Your task to perform on an android device: change the clock display to show seconds Image 0: 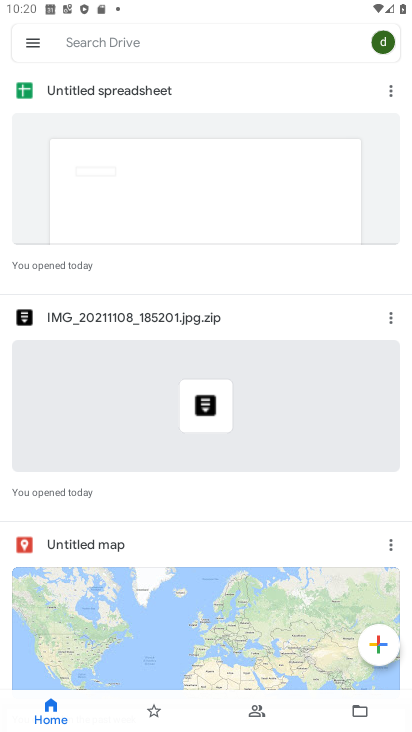
Step 0: press home button
Your task to perform on an android device: change the clock display to show seconds Image 1: 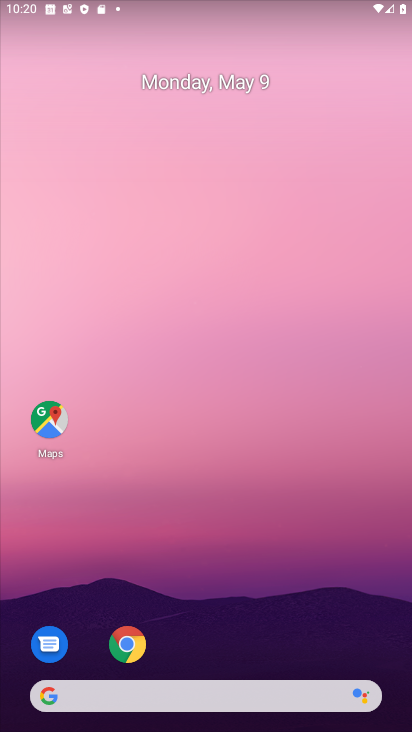
Step 1: drag from (228, 572) to (230, 228)
Your task to perform on an android device: change the clock display to show seconds Image 2: 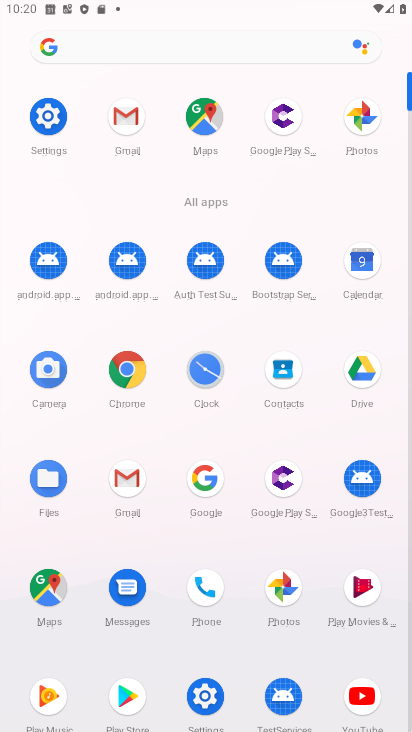
Step 2: click (193, 378)
Your task to perform on an android device: change the clock display to show seconds Image 3: 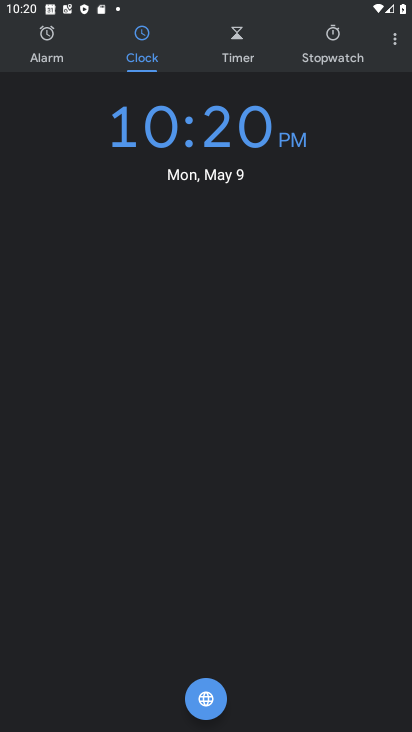
Step 3: click (403, 53)
Your task to perform on an android device: change the clock display to show seconds Image 4: 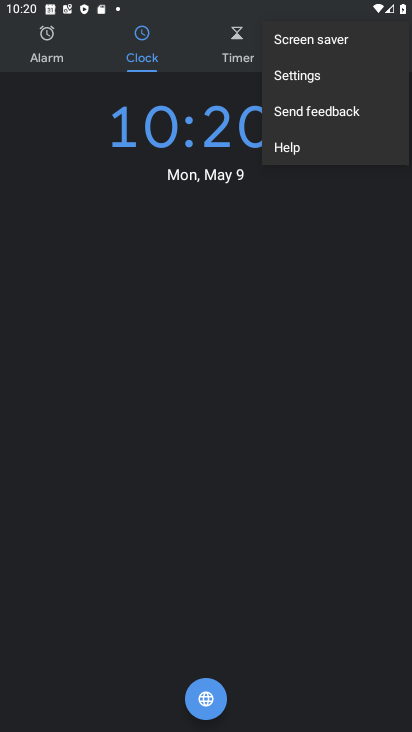
Step 4: click (287, 83)
Your task to perform on an android device: change the clock display to show seconds Image 5: 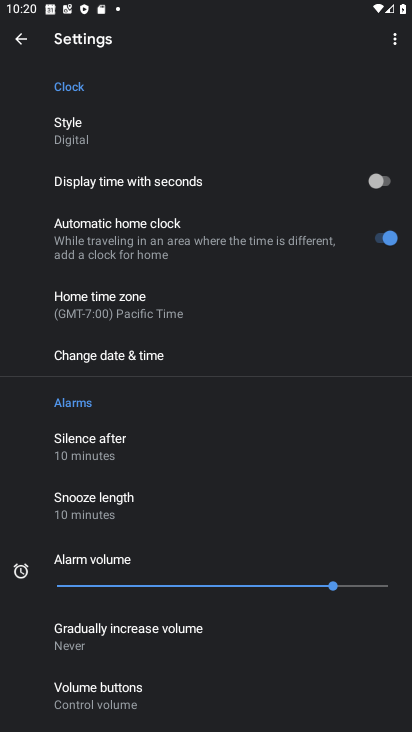
Step 5: click (107, 148)
Your task to perform on an android device: change the clock display to show seconds Image 6: 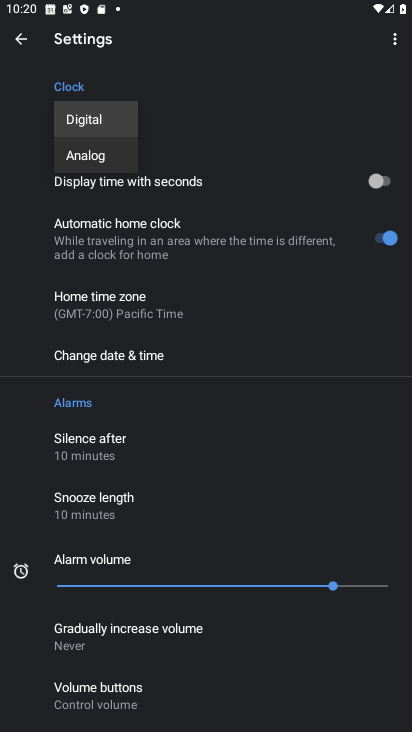
Step 6: click (121, 156)
Your task to perform on an android device: change the clock display to show seconds Image 7: 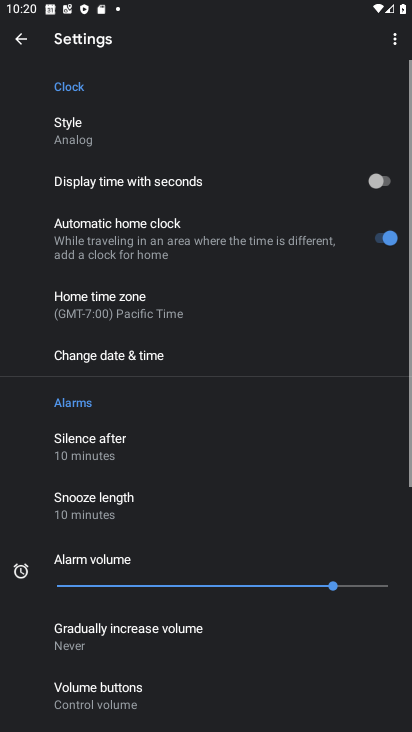
Step 7: click (395, 180)
Your task to perform on an android device: change the clock display to show seconds Image 8: 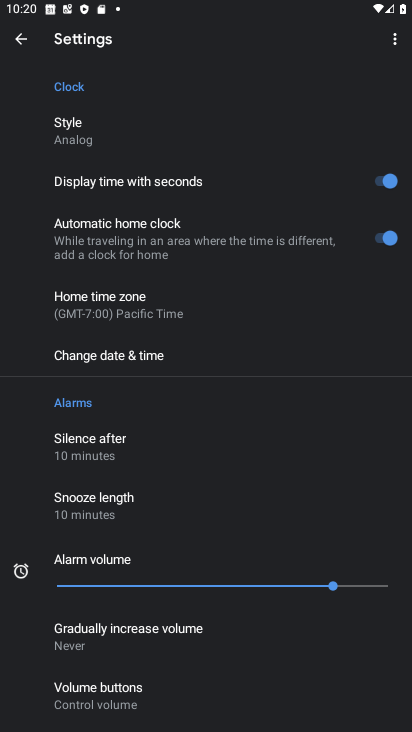
Step 8: task complete